Your task to perform on an android device: Open the calendar and show me this week's events? Image 0: 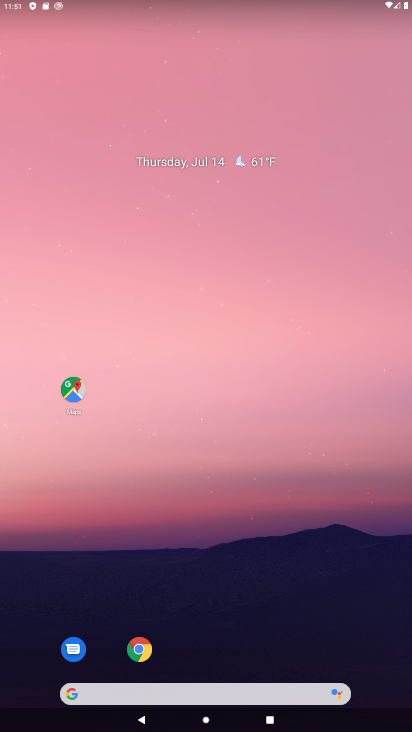
Step 0: drag from (291, 657) to (256, 14)
Your task to perform on an android device: Open the calendar and show me this week's events? Image 1: 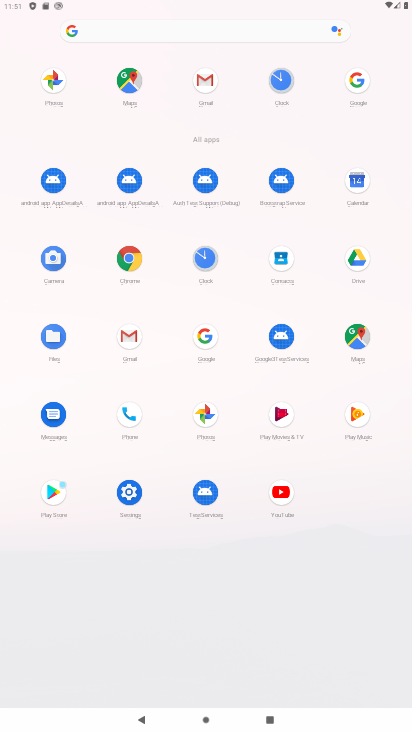
Step 1: click (365, 195)
Your task to perform on an android device: Open the calendar and show me this week's events? Image 2: 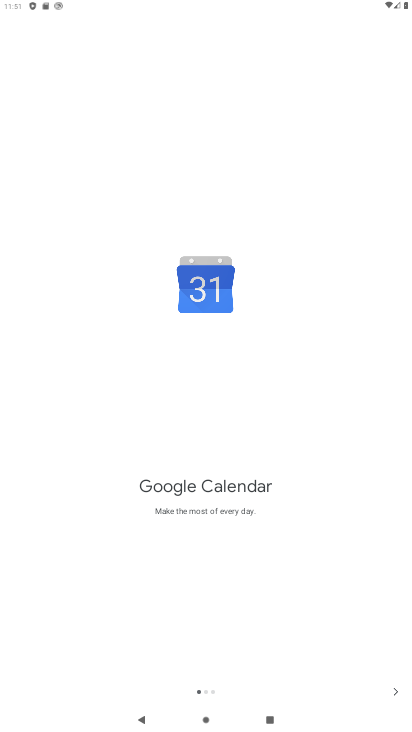
Step 2: click (402, 698)
Your task to perform on an android device: Open the calendar and show me this week's events? Image 3: 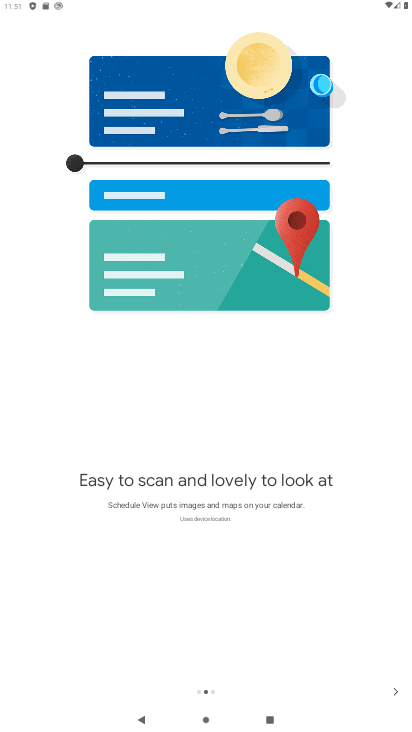
Step 3: click (402, 698)
Your task to perform on an android device: Open the calendar and show me this week's events? Image 4: 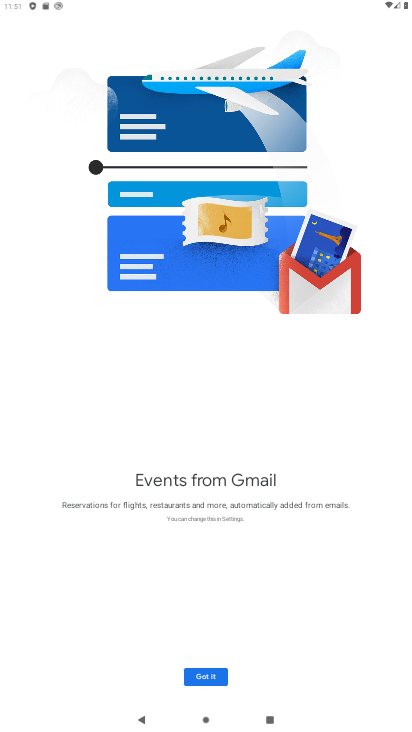
Step 4: click (219, 687)
Your task to perform on an android device: Open the calendar and show me this week's events? Image 5: 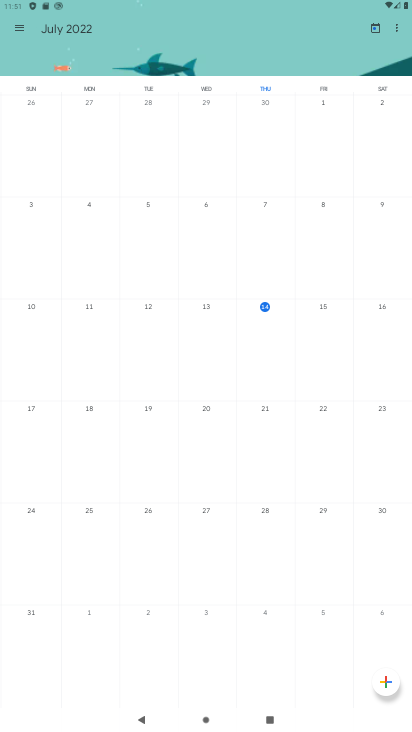
Step 5: click (24, 29)
Your task to perform on an android device: Open the calendar and show me this week's events? Image 6: 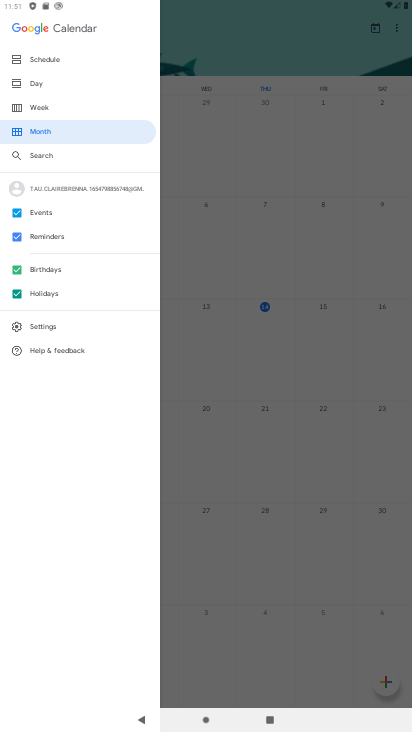
Step 6: click (19, 296)
Your task to perform on an android device: Open the calendar and show me this week's events? Image 7: 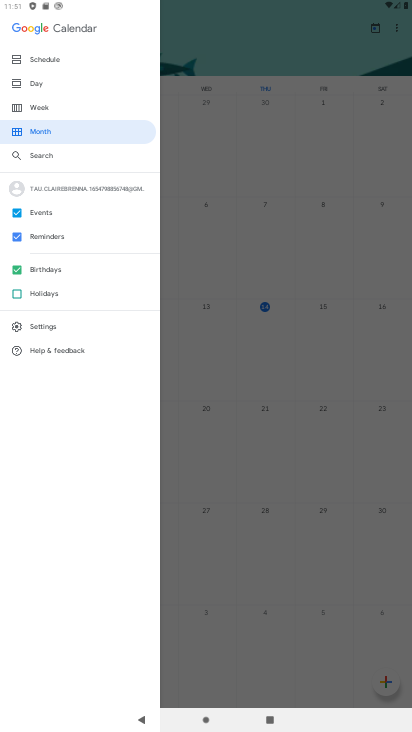
Step 7: click (19, 277)
Your task to perform on an android device: Open the calendar and show me this week's events? Image 8: 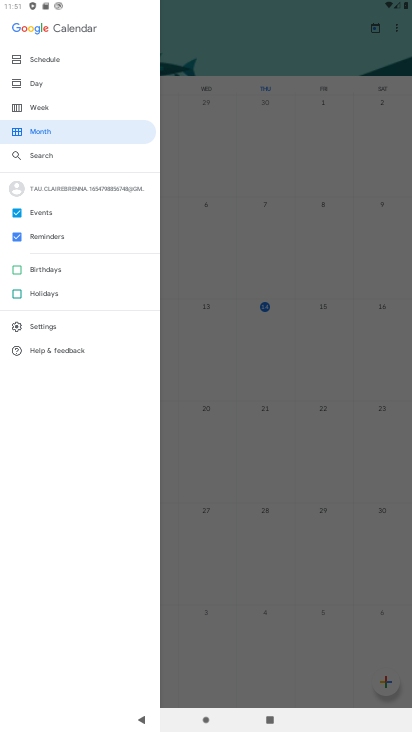
Step 8: click (17, 238)
Your task to perform on an android device: Open the calendar and show me this week's events? Image 9: 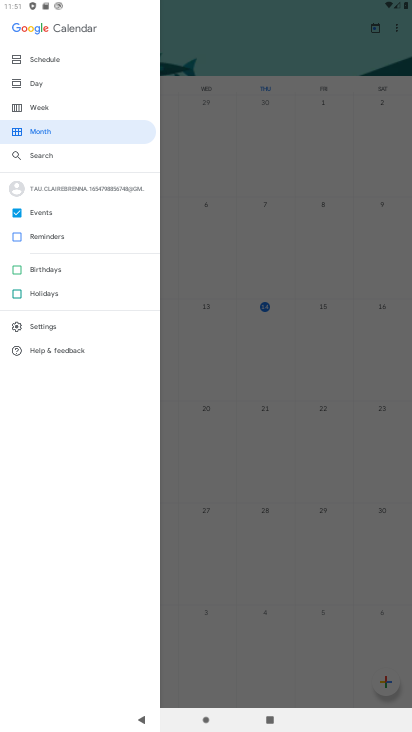
Step 9: click (25, 108)
Your task to perform on an android device: Open the calendar and show me this week's events? Image 10: 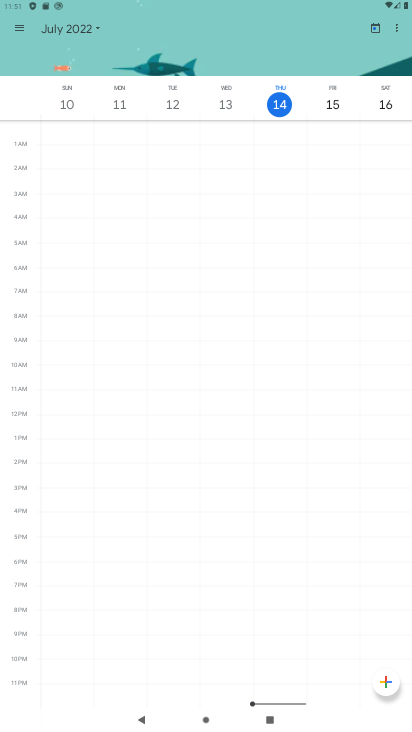
Step 10: task complete